Your task to perform on an android device: Open Yahoo.com Image 0: 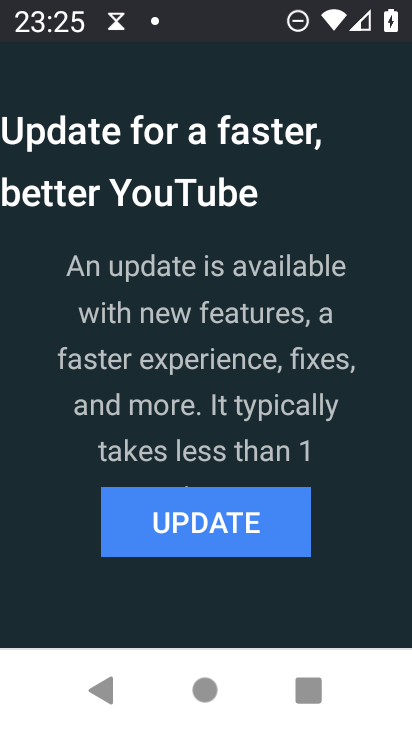
Step 0: press home button
Your task to perform on an android device: Open Yahoo.com Image 1: 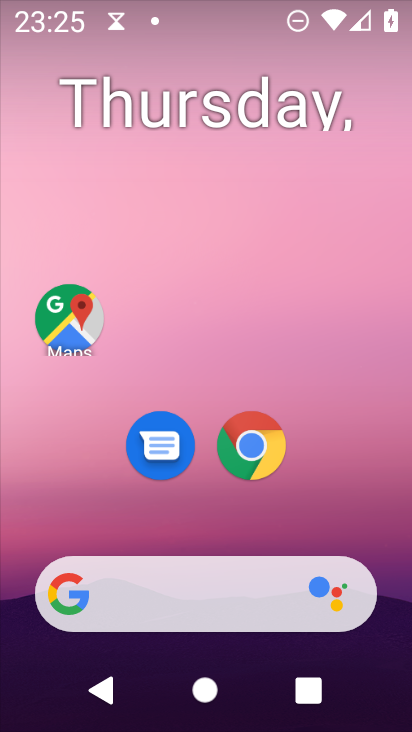
Step 1: click (254, 456)
Your task to perform on an android device: Open Yahoo.com Image 2: 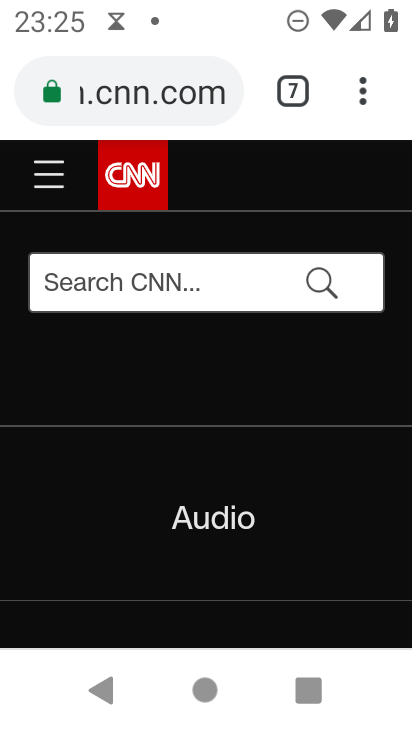
Step 2: click (363, 98)
Your task to perform on an android device: Open Yahoo.com Image 3: 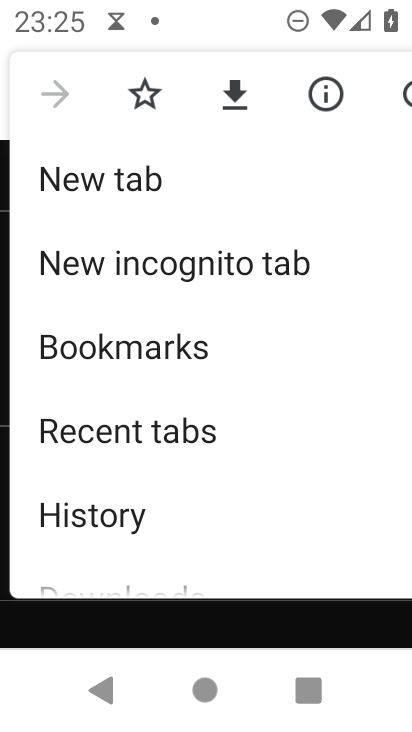
Step 3: click (112, 181)
Your task to perform on an android device: Open Yahoo.com Image 4: 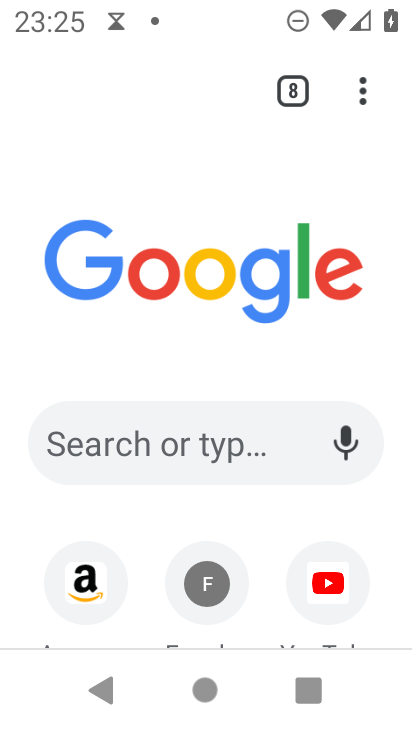
Step 4: drag from (266, 623) to (246, 408)
Your task to perform on an android device: Open Yahoo.com Image 5: 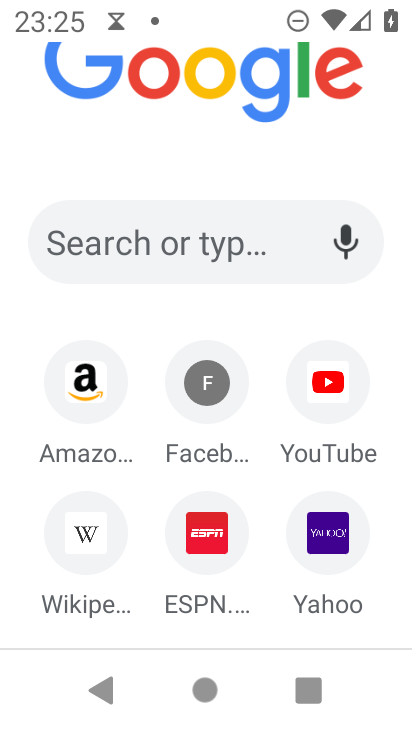
Step 5: click (323, 527)
Your task to perform on an android device: Open Yahoo.com Image 6: 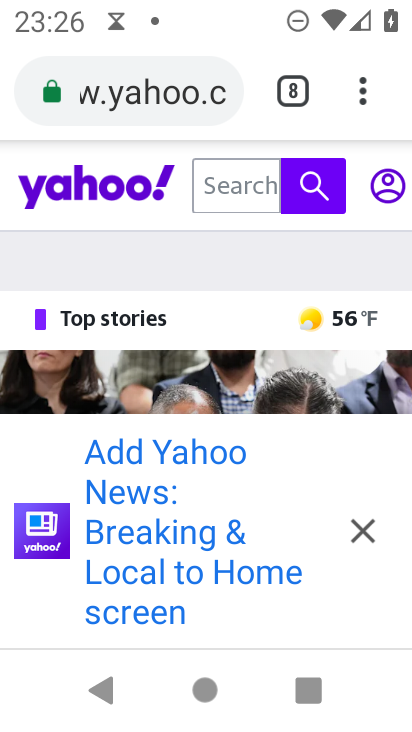
Step 6: task complete